Your task to perform on an android device: Show me the alarms in the clock app Image 0: 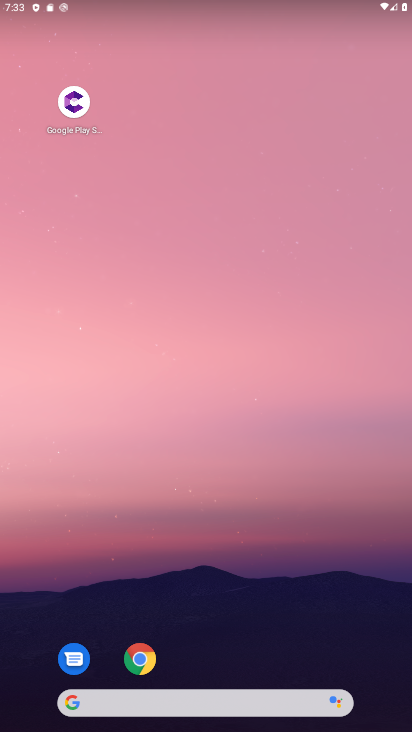
Step 0: drag from (376, 579) to (300, 148)
Your task to perform on an android device: Show me the alarms in the clock app Image 1: 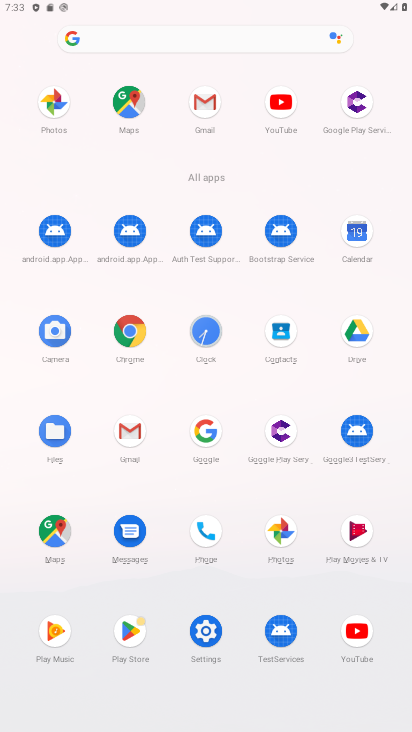
Step 1: click (211, 327)
Your task to perform on an android device: Show me the alarms in the clock app Image 2: 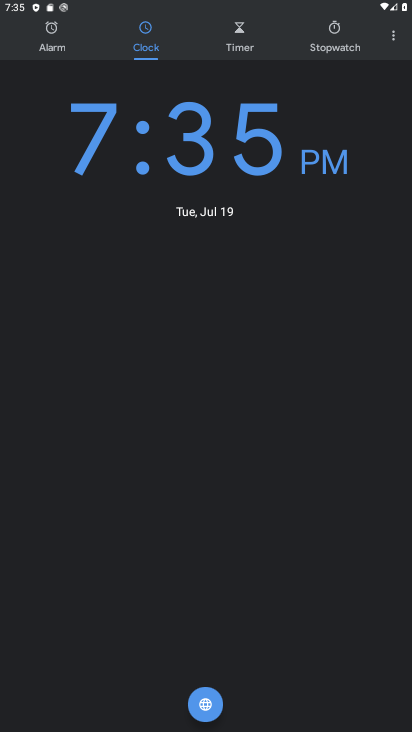
Step 2: click (392, 32)
Your task to perform on an android device: Show me the alarms in the clock app Image 3: 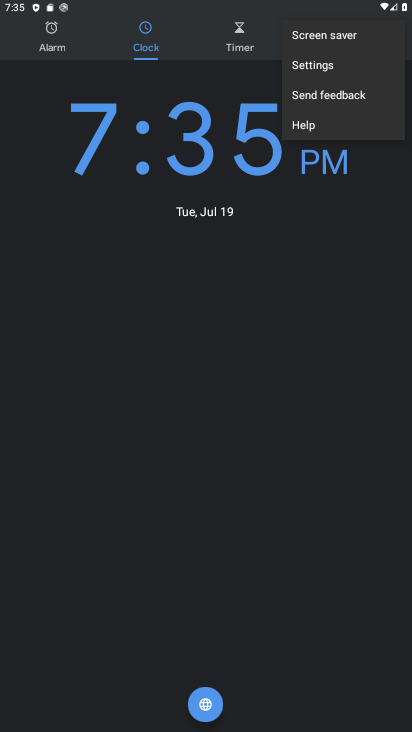
Step 3: click (56, 42)
Your task to perform on an android device: Show me the alarms in the clock app Image 4: 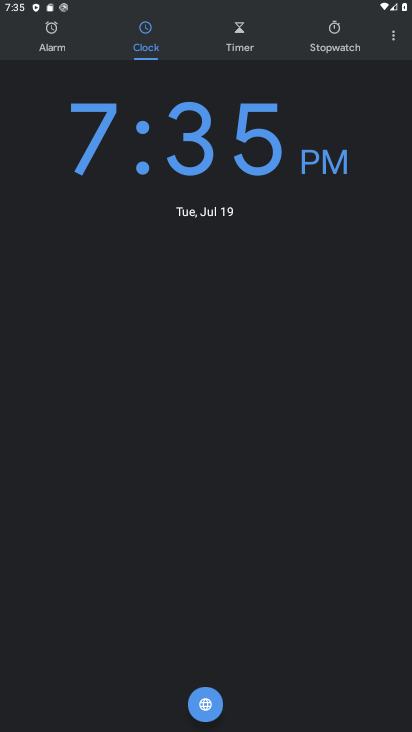
Step 4: click (41, 39)
Your task to perform on an android device: Show me the alarms in the clock app Image 5: 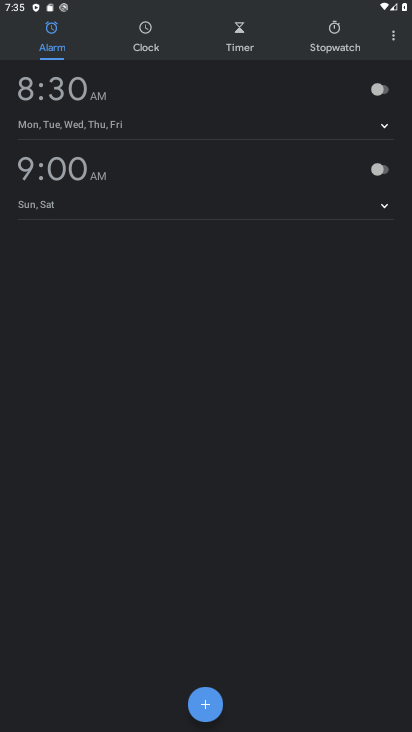
Step 5: task complete